Your task to perform on an android device: Go to calendar. Show me events next week Image 0: 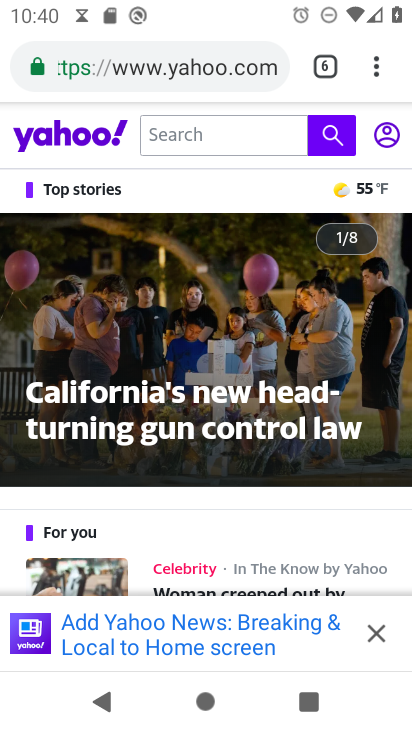
Step 0: press home button
Your task to perform on an android device: Go to calendar. Show me events next week Image 1: 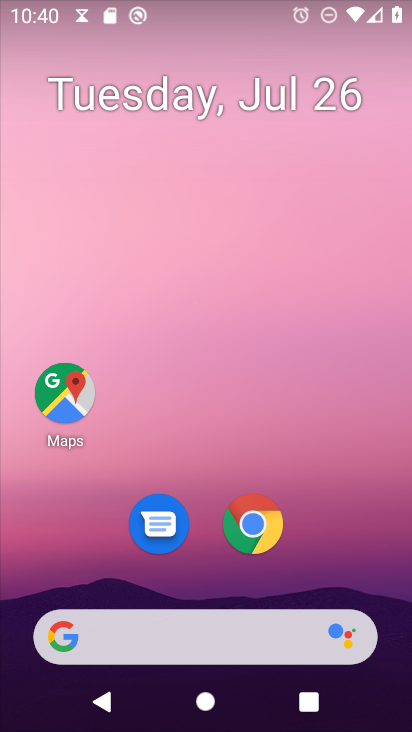
Step 1: drag from (153, 642) to (261, 95)
Your task to perform on an android device: Go to calendar. Show me events next week Image 2: 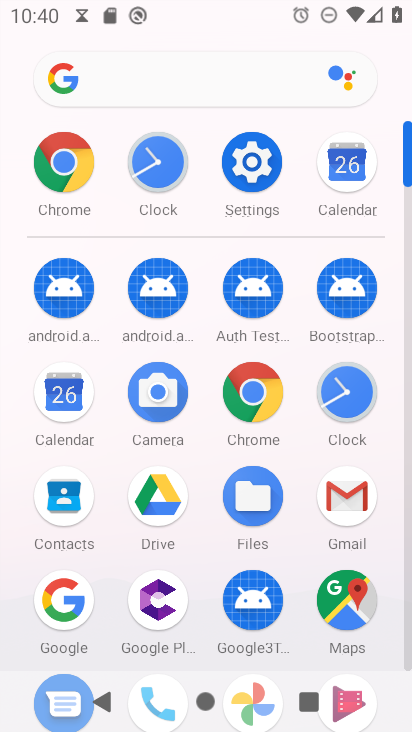
Step 2: click (66, 390)
Your task to perform on an android device: Go to calendar. Show me events next week Image 3: 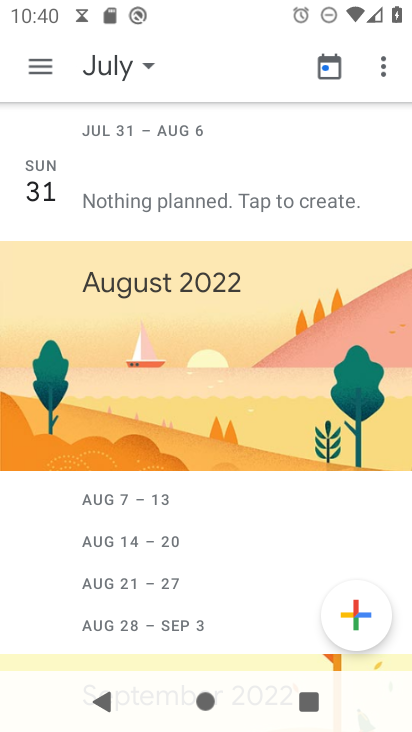
Step 3: click (123, 62)
Your task to perform on an android device: Go to calendar. Show me events next week Image 4: 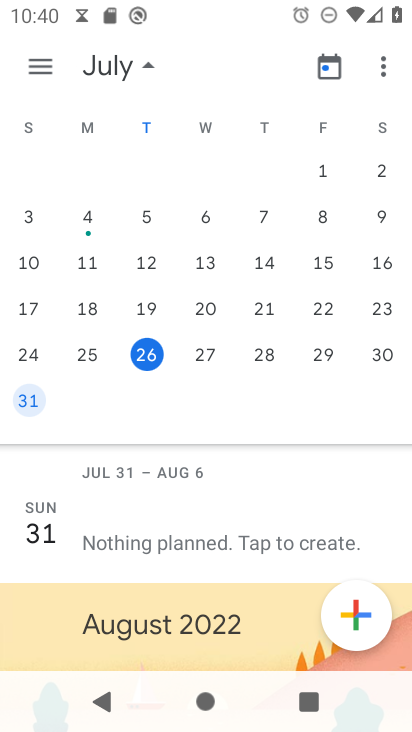
Step 4: click (30, 400)
Your task to perform on an android device: Go to calendar. Show me events next week Image 5: 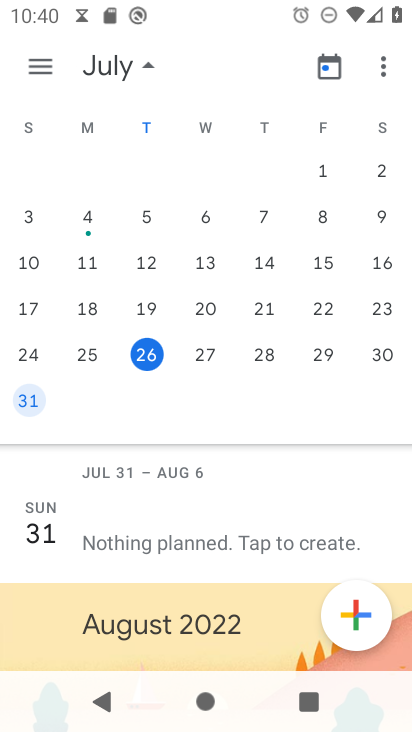
Step 5: task complete